Your task to perform on an android device: Open Chrome and go to settings Image 0: 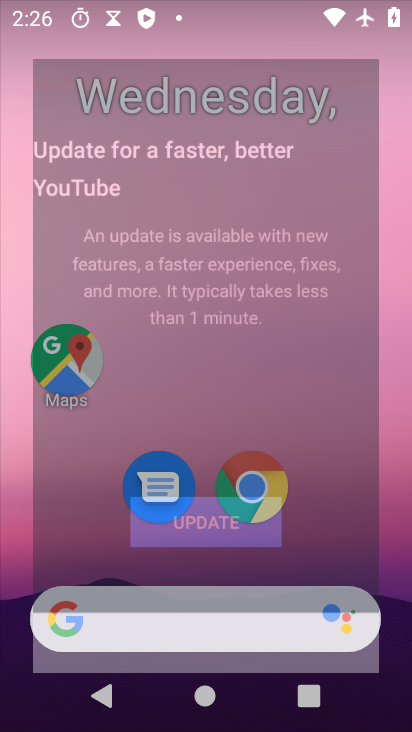
Step 0: drag from (251, 613) to (249, 375)
Your task to perform on an android device: Open Chrome and go to settings Image 1: 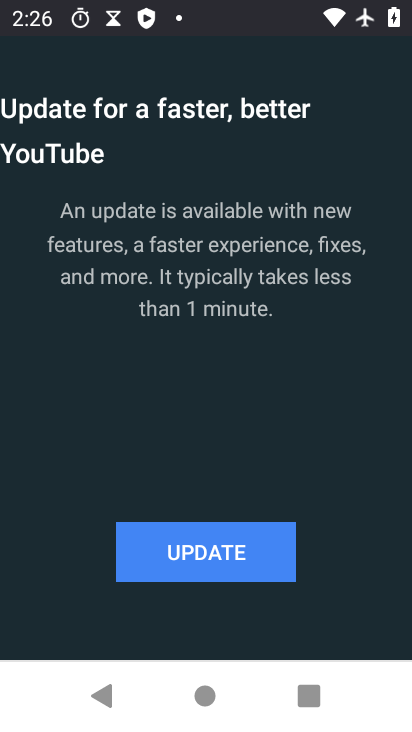
Step 1: press back button
Your task to perform on an android device: Open Chrome and go to settings Image 2: 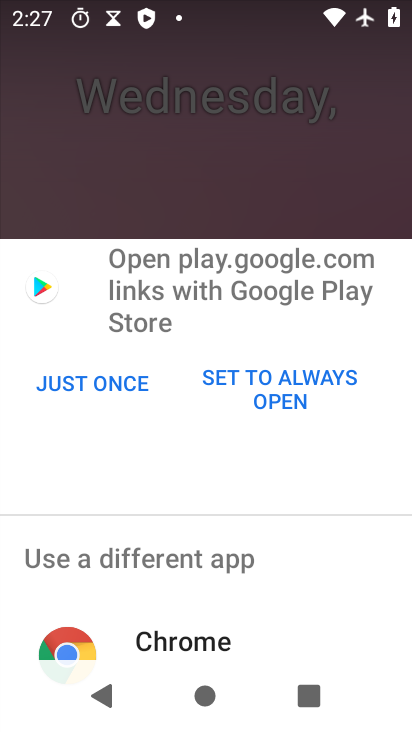
Step 2: press home button
Your task to perform on an android device: Open Chrome and go to settings Image 3: 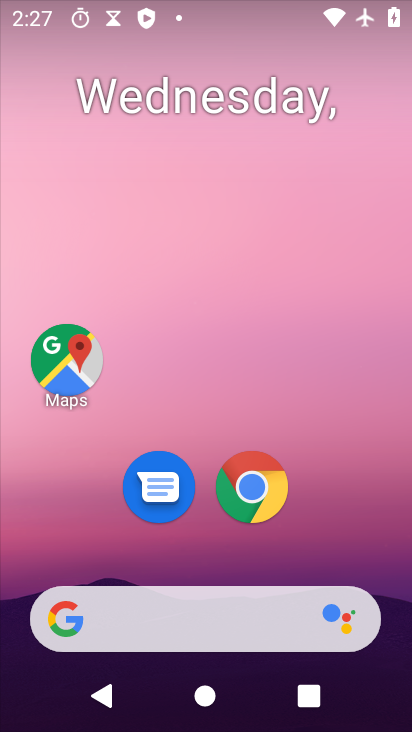
Step 3: drag from (285, 676) to (243, 180)
Your task to perform on an android device: Open Chrome and go to settings Image 4: 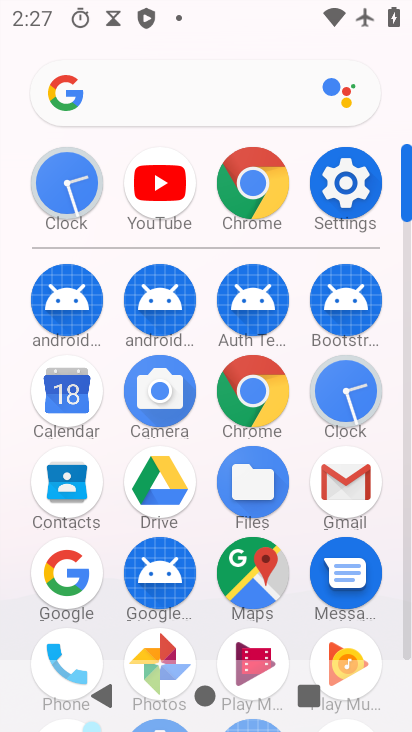
Step 4: click (348, 178)
Your task to perform on an android device: Open Chrome and go to settings Image 5: 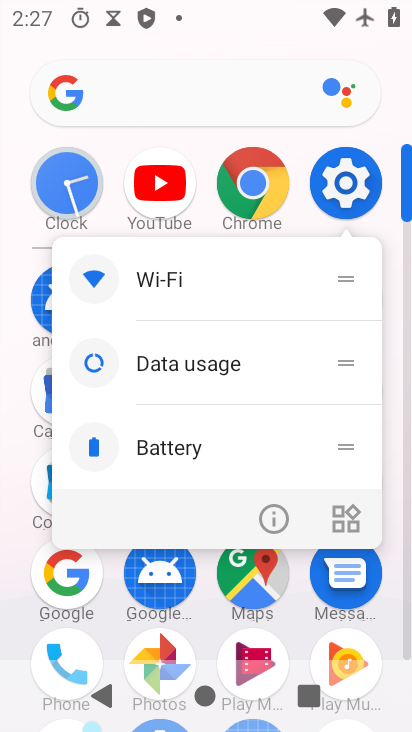
Step 5: click (335, 199)
Your task to perform on an android device: Open Chrome and go to settings Image 6: 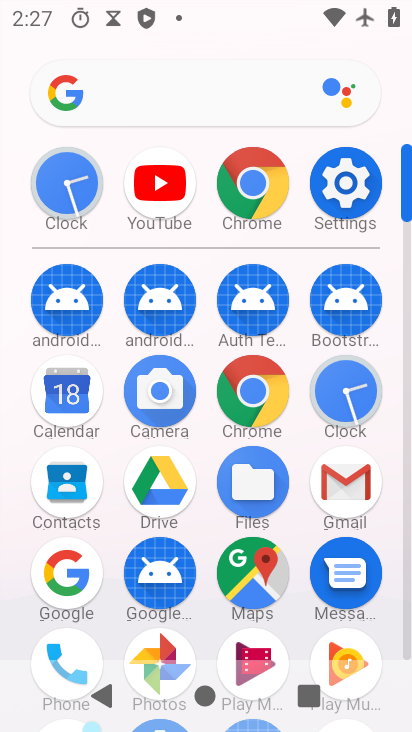
Step 6: click (334, 185)
Your task to perform on an android device: Open Chrome and go to settings Image 7: 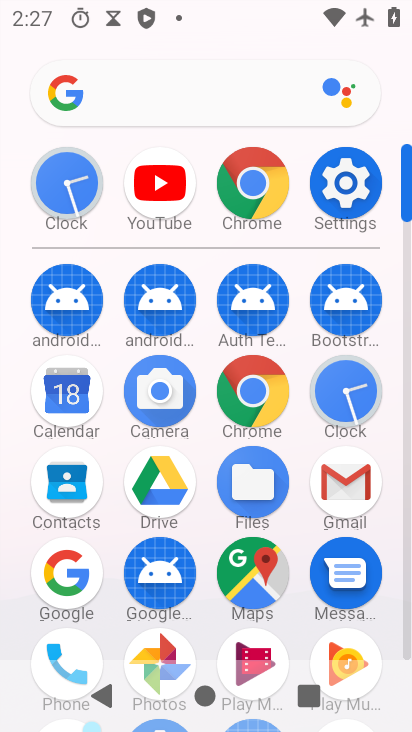
Step 7: click (334, 185)
Your task to perform on an android device: Open Chrome and go to settings Image 8: 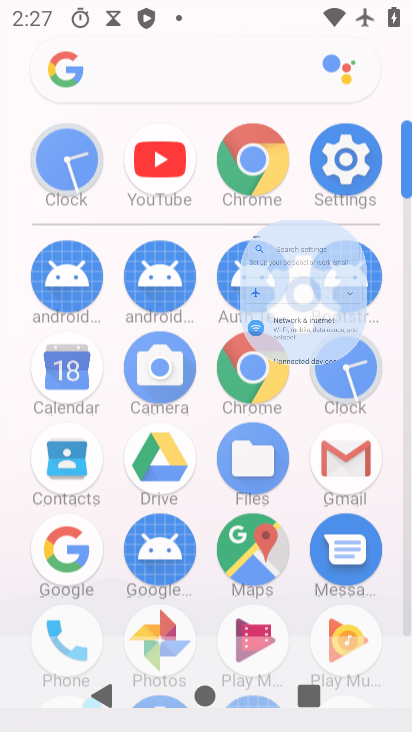
Step 8: click (334, 185)
Your task to perform on an android device: Open Chrome and go to settings Image 9: 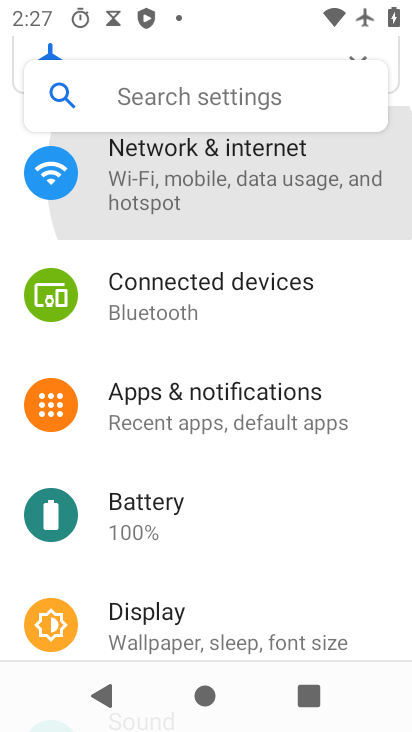
Step 9: click (334, 185)
Your task to perform on an android device: Open Chrome and go to settings Image 10: 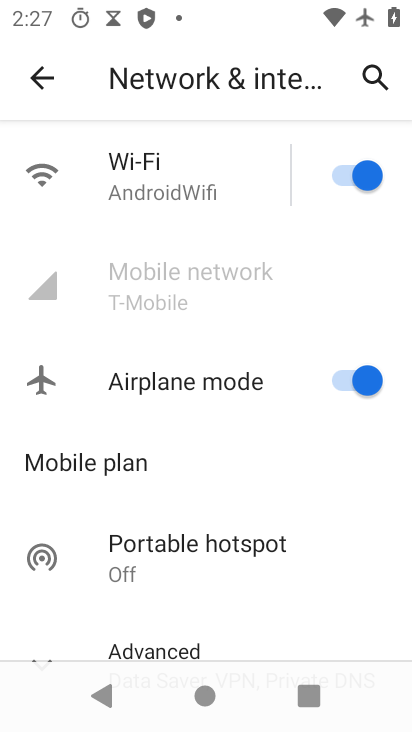
Step 10: press back button
Your task to perform on an android device: Open Chrome and go to settings Image 11: 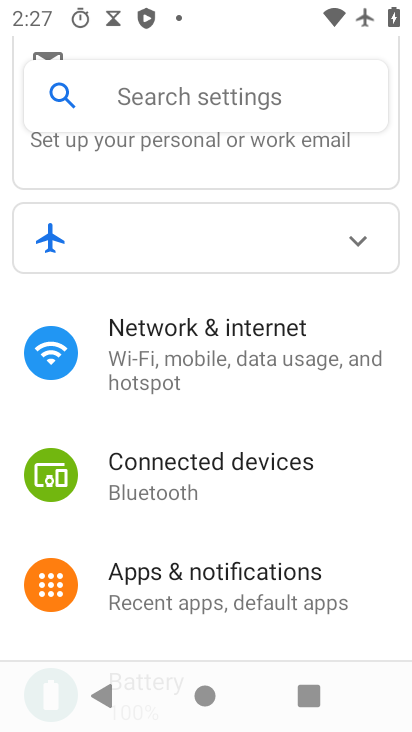
Step 11: press home button
Your task to perform on an android device: Open Chrome and go to settings Image 12: 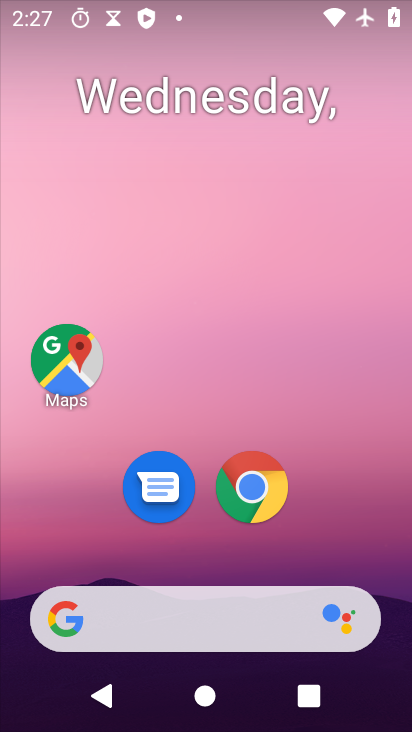
Step 12: drag from (378, 680) to (207, 309)
Your task to perform on an android device: Open Chrome and go to settings Image 13: 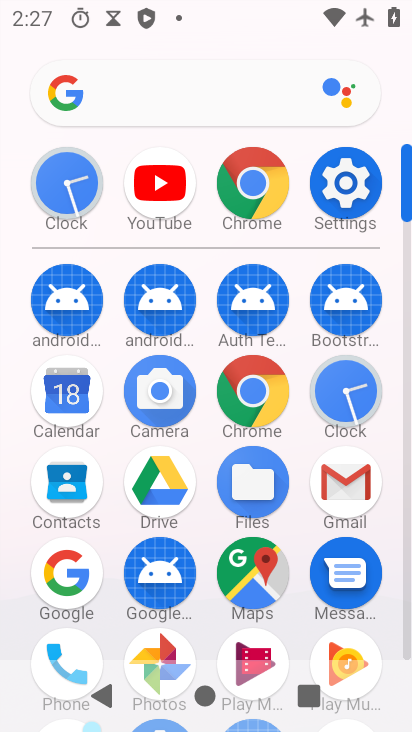
Step 13: click (256, 183)
Your task to perform on an android device: Open Chrome and go to settings Image 14: 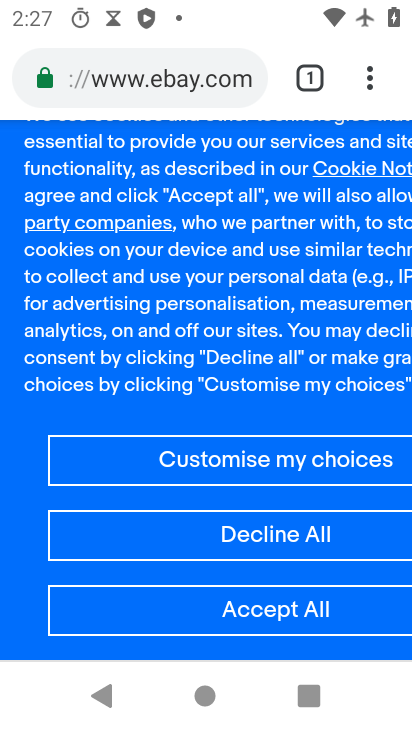
Step 14: click (359, 79)
Your task to perform on an android device: Open Chrome and go to settings Image 15: 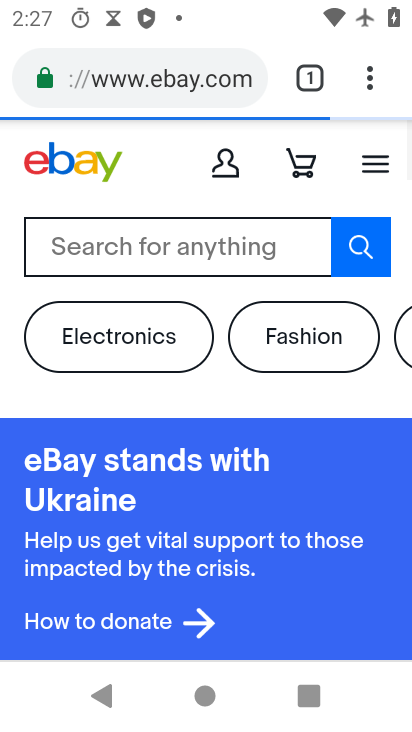
Step 15: drag from (368, 69) to (80, 538)
Your task to perform on an android device: Open Chrome and go to settings Image 16: 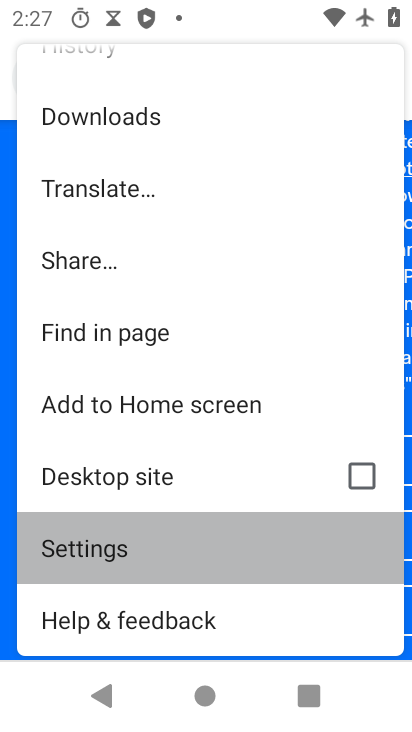
Step 16: click (80, 538)
Your task to perform on an android device: Open Chrome and go to settings Image 17: 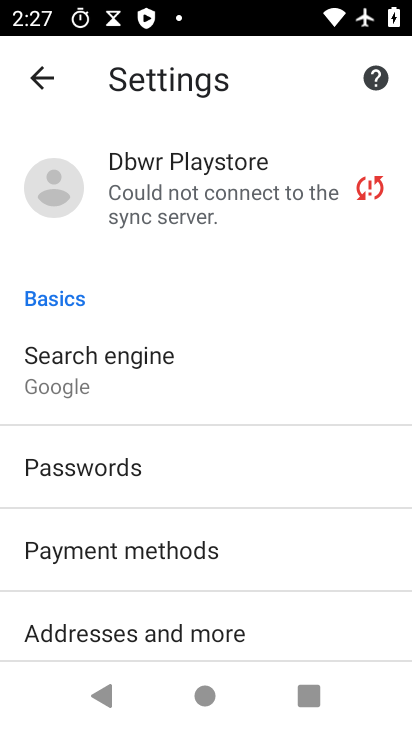
Step 17: task complete